Your task to perform on an android device: Clear all items from cart on walmart.com. Add "usb-a" to the cart on walmart.com Image 0: 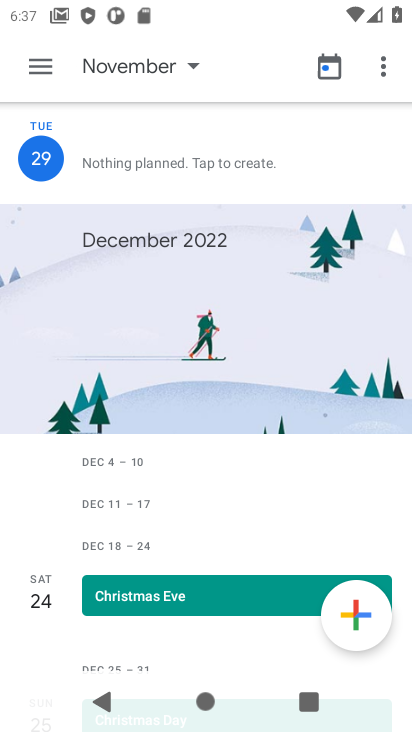
Step 0: press home button
Your task to perform on an android device: Clear all items from cart on walmart.com. Add "usb-a" to the cart on walmart.com Image 1: 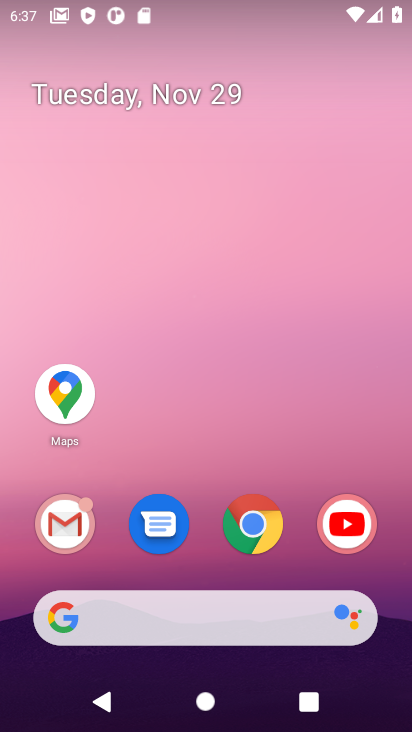
Step 1: click (258, 531)
Your task to perform on an android device: Clear all items from cart on walmart.com. Add "usb-a" to the cart on walmart.com Image 2: 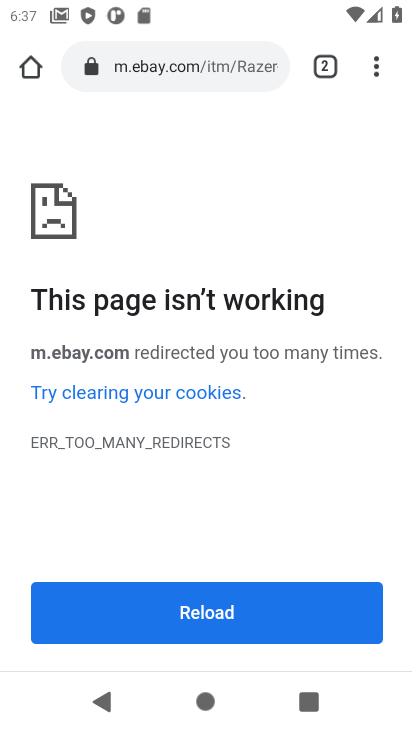
Step 2: click (138, 68)
Your task to perform on an android device: Clear all items from cart on walmart.com. Add "usb-a" to the cart on walmart.com Image 3: 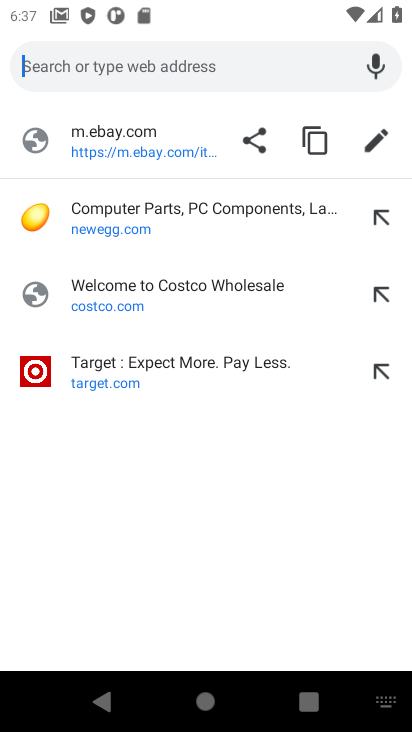
Step 3: type "walmart.com"
Your task to perform on an android device: Clear all items from cart on walmart.com. Add "usb-a" to the cart on walmart.com Image 4: 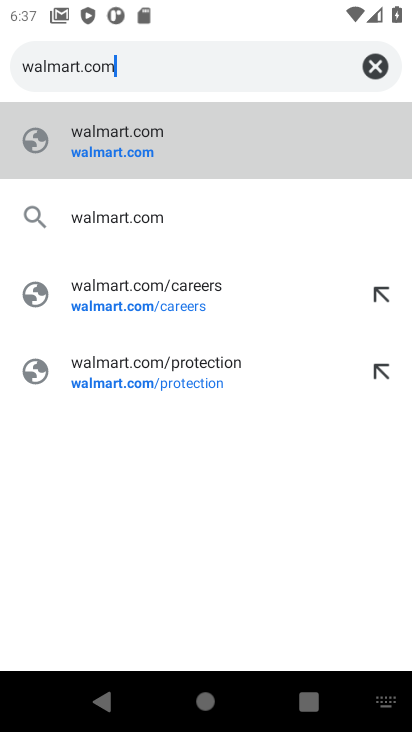
Step 4: click (93, 158)
Your task to perform on an android device: Clear all items from cart on walmart.com. Add "usb-a" to the cart on walmart.com Image 5: 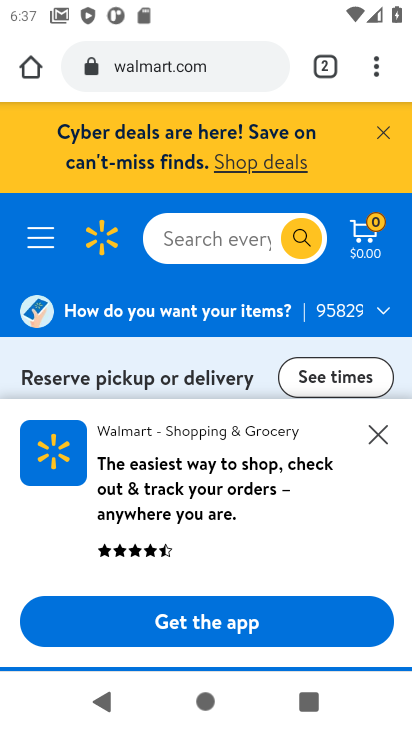
Step 5: click (365, 241)
Your task to perform on an android device: Clear all items from cart on walmart.com. Add "usb-a" to the cart on walmart.com Image 6: 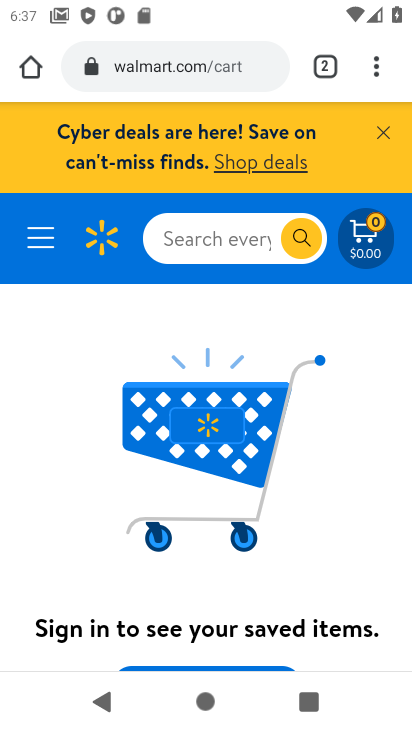
Step 6: click (162, 245)
Your task to perform on an android device: Clear all items from cart on walmart.com. Add "usb-a" to the cart on walmart.com Image 7: 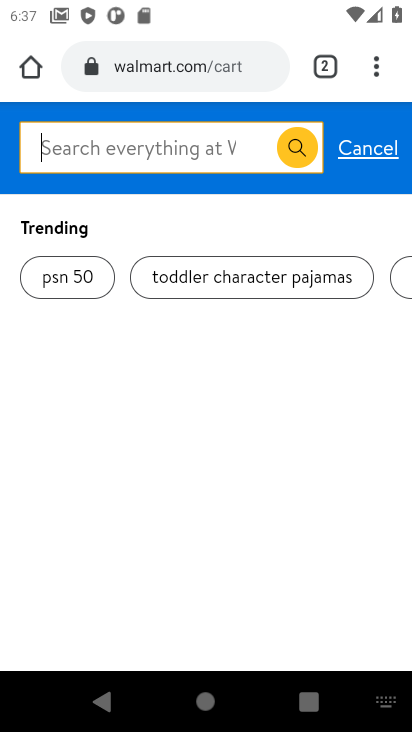
Step 7: type "usb-a"
Your task to perform on an android device: Clear all items from cart on walmart.com. Add "usb-a" to the cart on walmart.com Image 8: 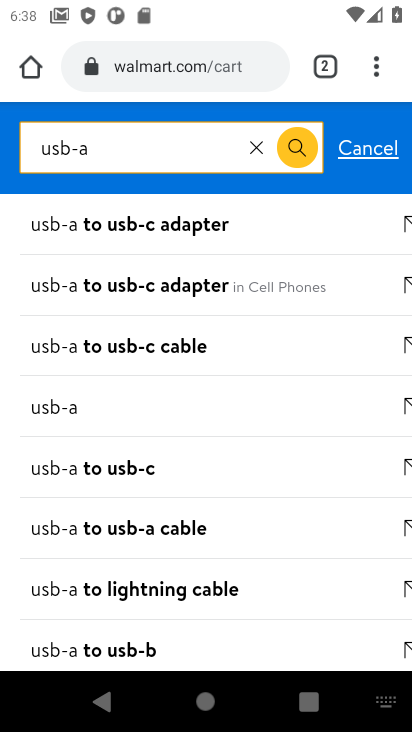
Step 8: click (56, 417)
Your task to perform on an android device: Clear all items from cart on walmart.com. Add "usb-a" to the cart on walmart.com Image 9: 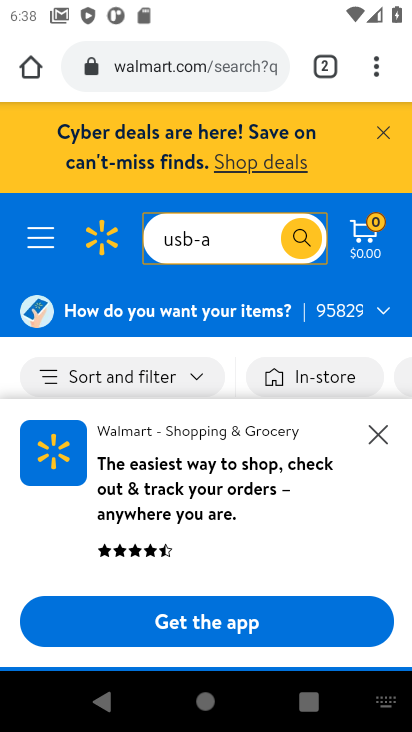
Step 9: click (375, 431)
Your task to perform on an android device: Clear all items from cart on walmart.com. Add "usb-a" to the cart on walmart.com Image 10: 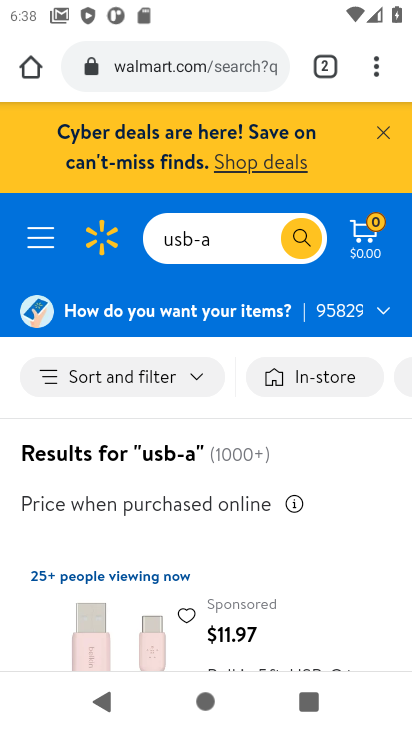
Step 10: drag from (264, 445) to (261, 194)
Your task to perform on an android device: Clear all items from cart on walmart.com. Add "usb-a" to the cart on walmart.com Image 11: 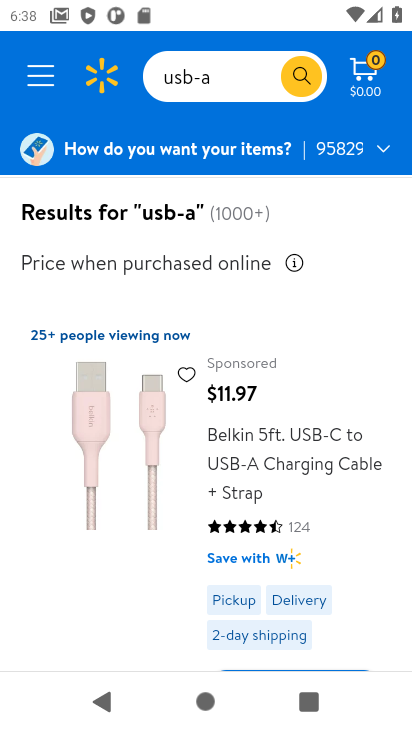
Step 11: drag from (176, 519) to (185, 342)
Your task to perform on an android device: Clear all items from cart on walmart.com. Add "usb-a" to the cart on walmart.com Image 12: 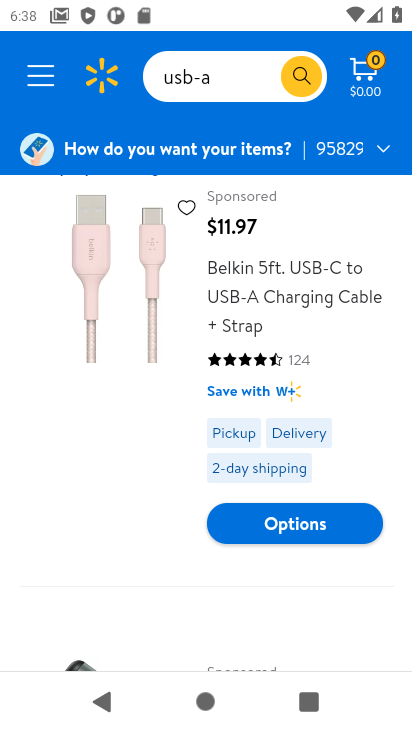
Step 12: drag from (162, 471) to (165, 290)
Your task to perform on an android device: Clear all items from cart on walmart.com. Add "usb-a" to the cart on walmart.com Image 13: 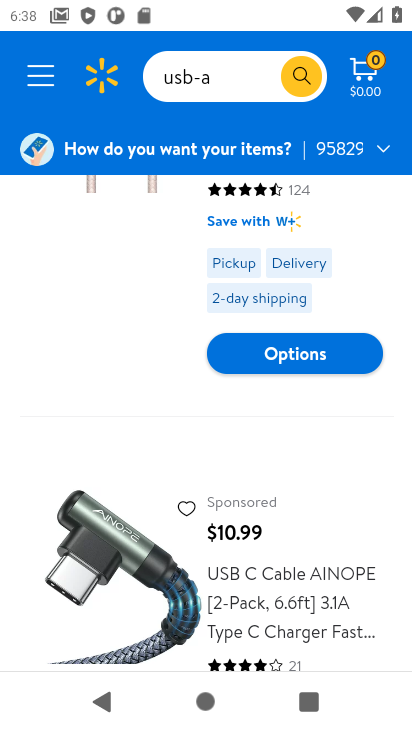
Step 13: drag from (158, 307) to (121, 547)
Your task to perform on an android device: Clear all items from cart on walmart.com. Add "usb-a" to the cart on walmart.com Image 14: 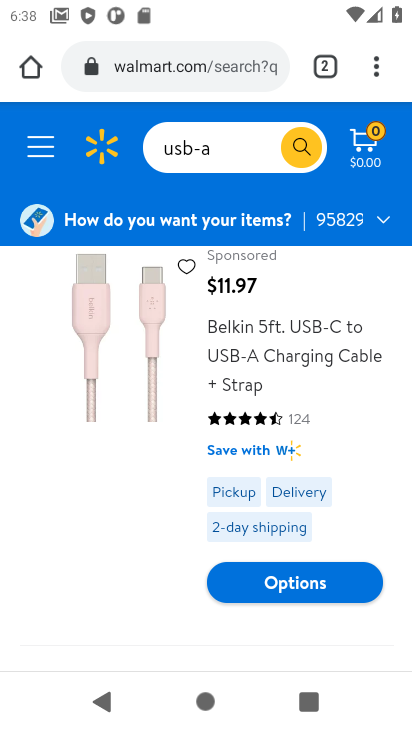
Step 14: click (209, 345)
Your task to perform on an android device: Clear all items from cart on walmart.com. Add "usb-a" to the cart on walmart.com Image 15: 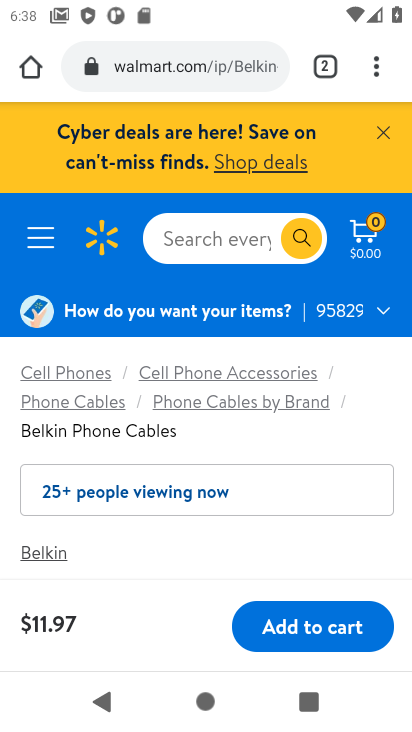
Step 15: click (302, 626)
Your task to perform on an android device: Clear all items from cart on walmart.com. Add "usb-a" to the cart on walmart.com Image 16: 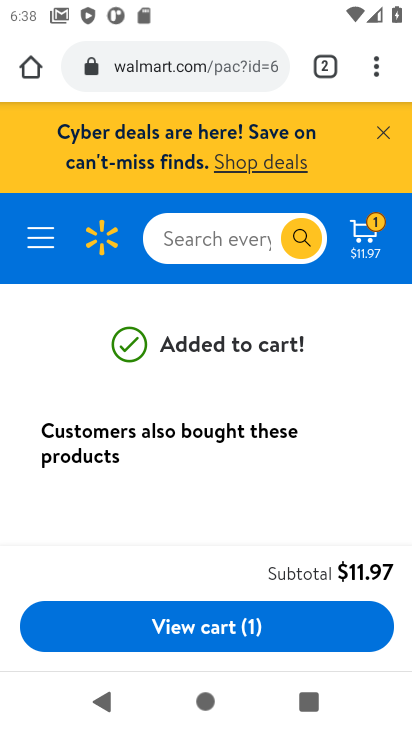
Step 16: task complete